Your task to perform on an android device: turn on javascript in the chrome app Image 0: 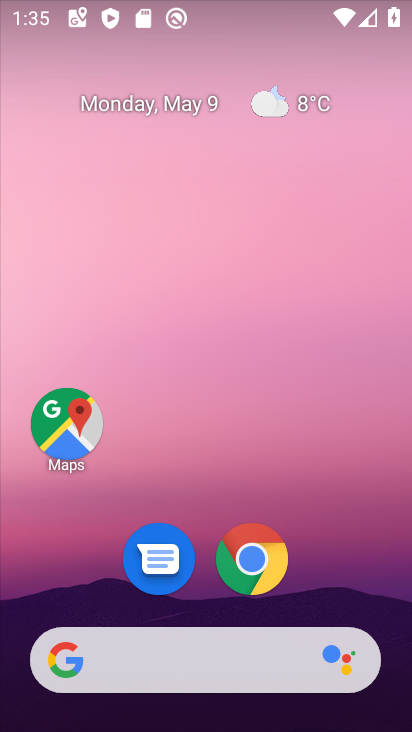
Step 0: click (253, 557)
Your task to perform on an android device: turn on javascript in the chrome app Image 1: 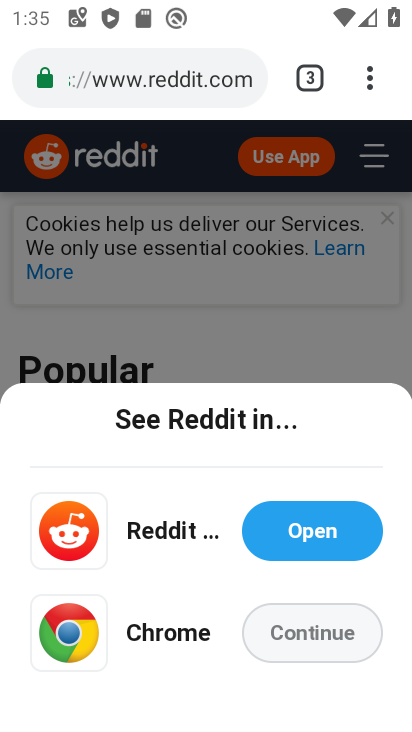
Step 1: click (366, 84)
Your task to perform on an android device: turn on javascript in the chrome app Image 2: 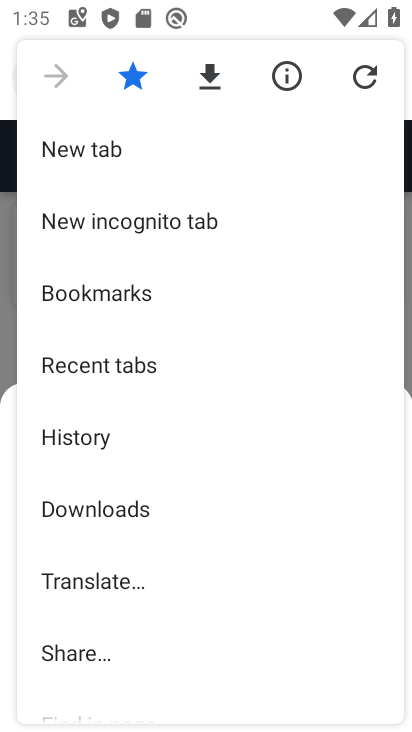
Step 2: drag from (266, 511) to (240, 121)
Your task to perform on an android device: turn on javascript in the chrome app Image 3: 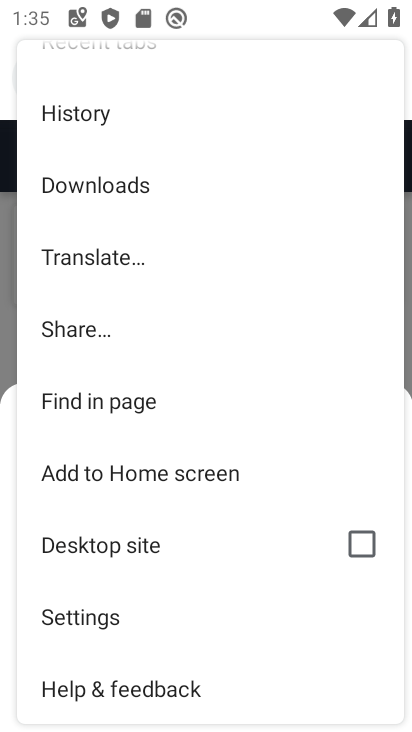
Step 3: drag from (204, 611) to (177, 306)
Your task to perform on an android device: turn on javascript in the chrome app Image 4: 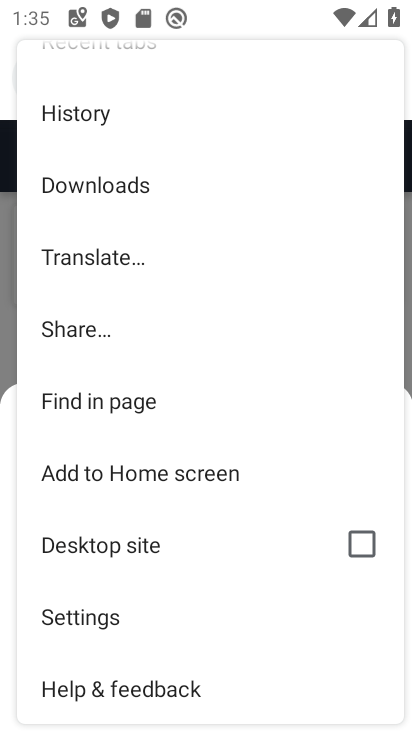
Step 4: click (81, 612)
Your task to perform on an android device: turn on javascript in the chrome app Image 5: 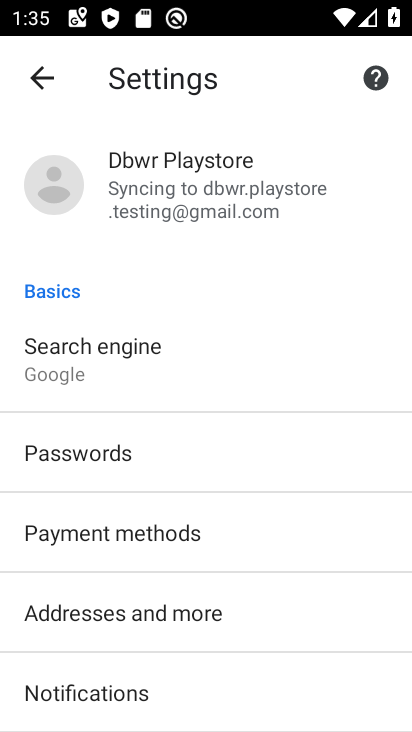
Step 5: drag from (221, 544) to (216, 121)
Your task to perform on an android device: turn on javascript in the chrome app Image 6: 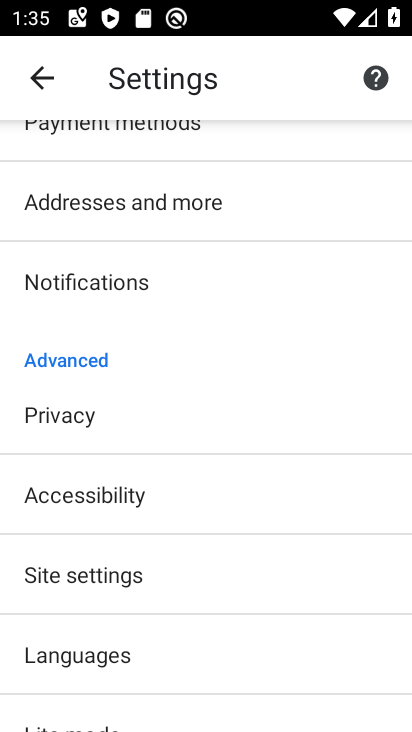
Step 6: drag from (192, 593) to (171, 394)
Your task to perform on an android device: turn on javascript in the chrome app Image 7: 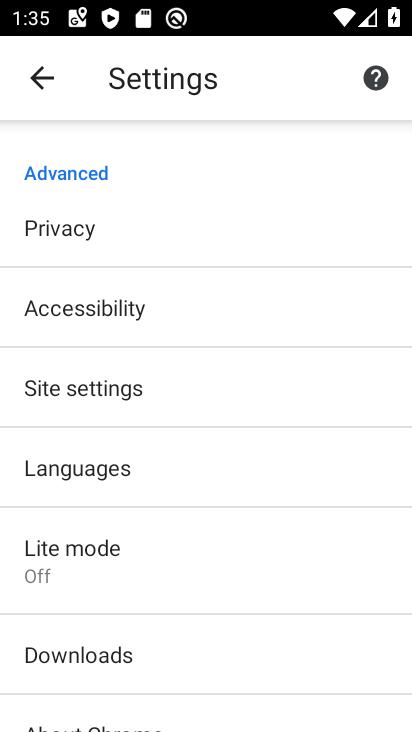
Step 7: click (90, 394)
Your task to perform on an android device: turn on javascript in the chrome app Image 8: 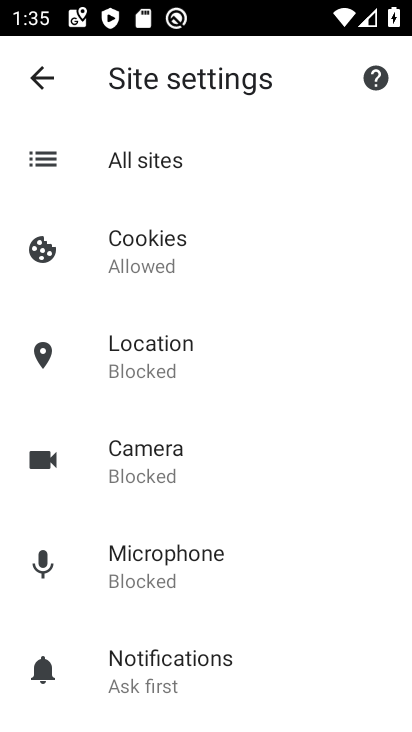
Step 8: drag from (198, 596) to (201, 219)
Your task to perform on an android device: turn on javascript in the chrome app Image 9: 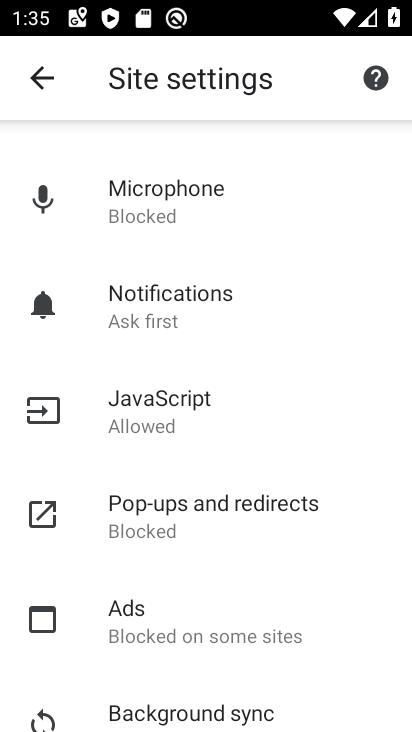
Step 9: click (167, 407)
Your task to perform on an android device: turn on javascript in the chrome app Image 10: 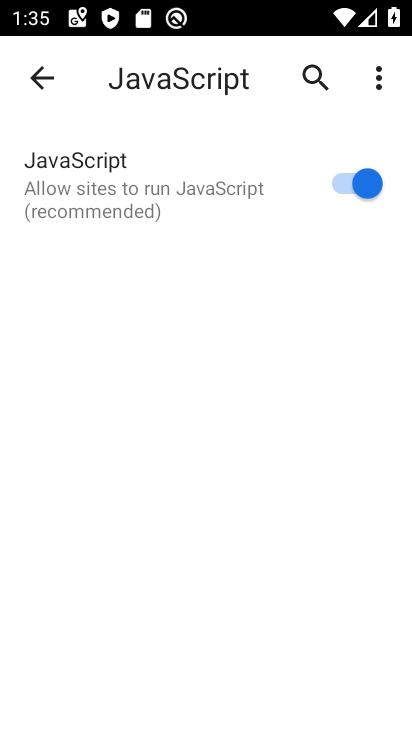
Step 10: task complete